Your task to perform on an android device: choose inbox layout in the gmail app Image 0: 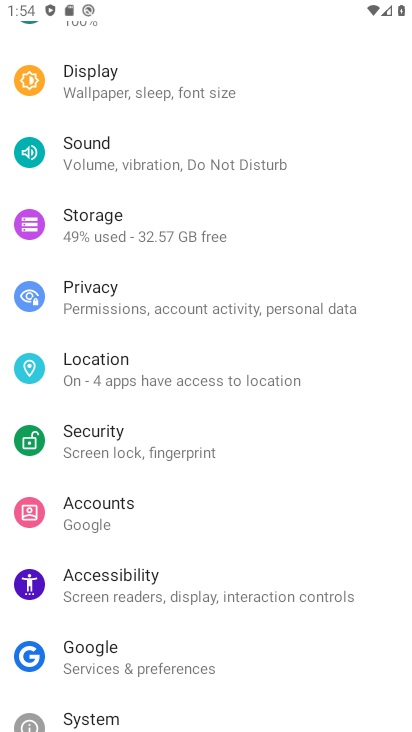
Step 0: press home button
Your task to perform on an android device: choose inbox layout in the gmail app Image 1: 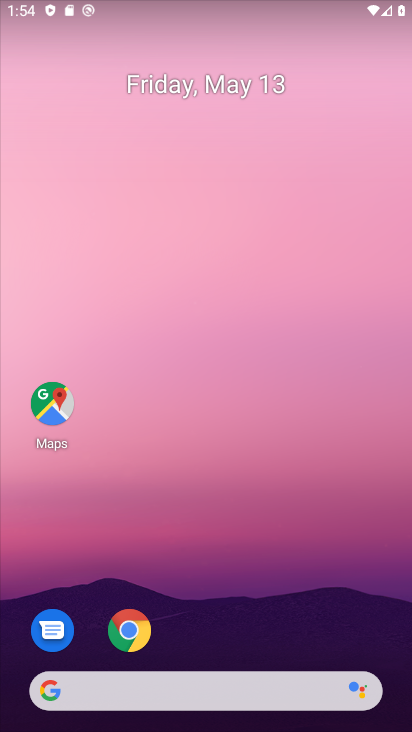
Step 1: drag from (248, 602) to (204, 171)
Your task to perform on an android device: choose inbox layout in the gmail app Image 2: 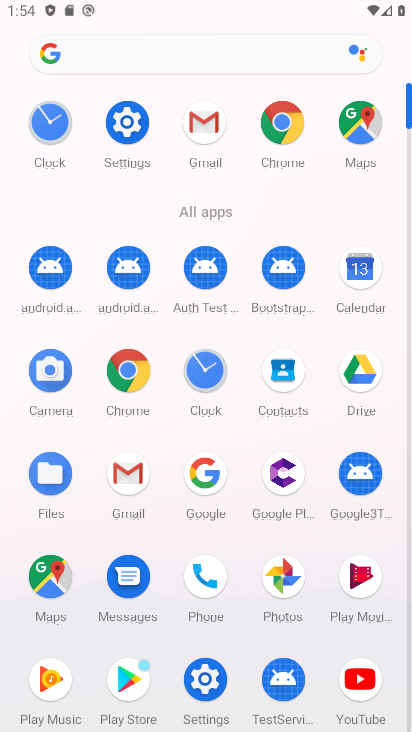
Step 2: click (133, 478)
Your task to perform on an android device: choose inbox layout in the gmail app Image 3: 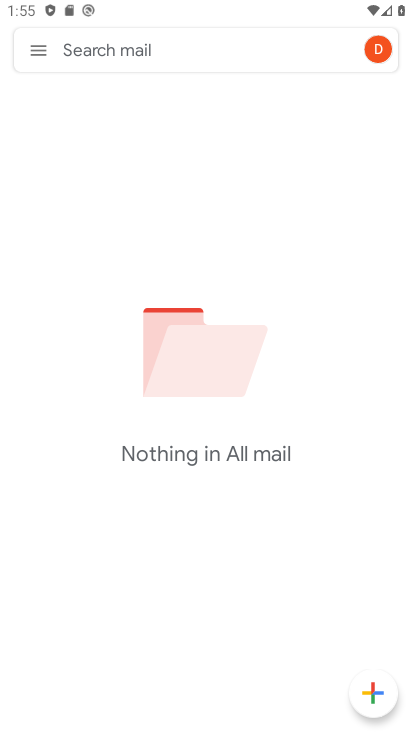
Step 3: click (41, 51)
Your task to perform on an android device: choose inbox layout in the gmail app Image 4: 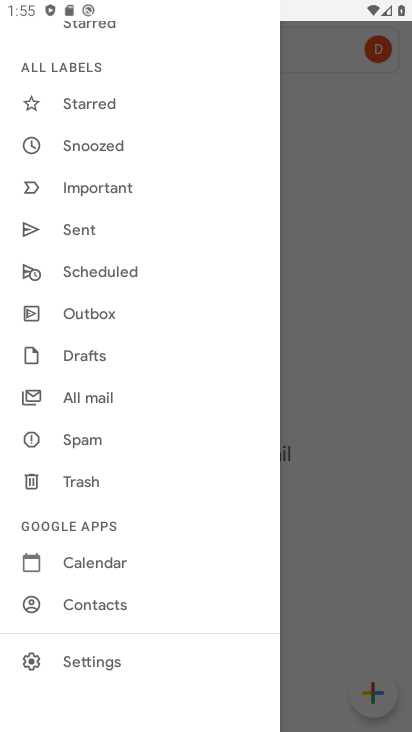
Step 4: click (109, 660)
Your task to perform on an android device: choose inbox layout in the gmail app Image 5: 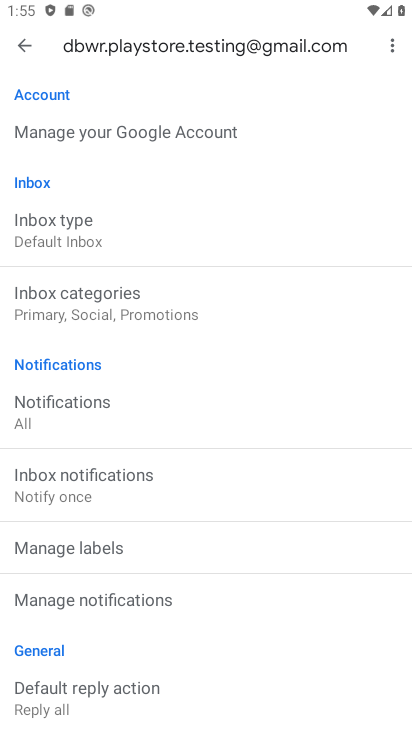
Step 5: click (72, 230)
Your task to perform on an android device: choose inbox layout in the gmail app Image 6: 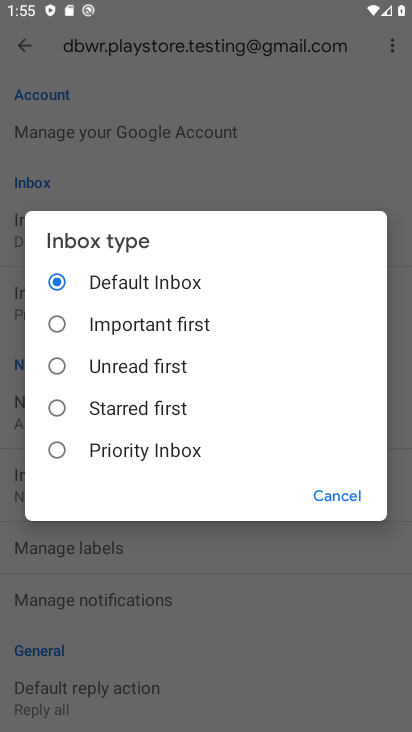
Step 6: click (58, 446)
Your task to perform on an android device: choose inbox layout in the gmail app Image 7: 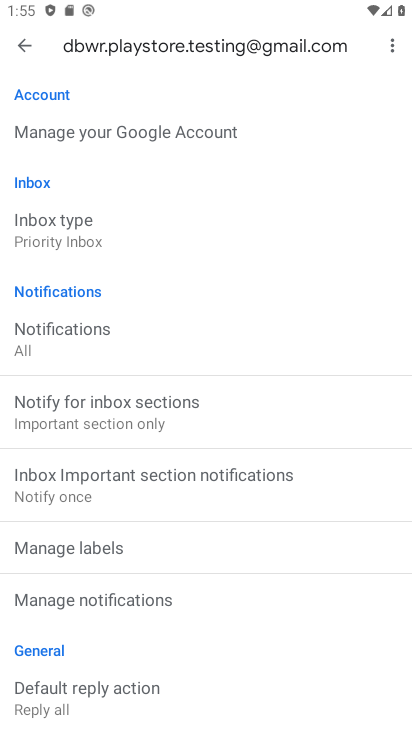
Step 7: task complete